Your task to perform on an android device: Open Chrome and go to settings Image 0: 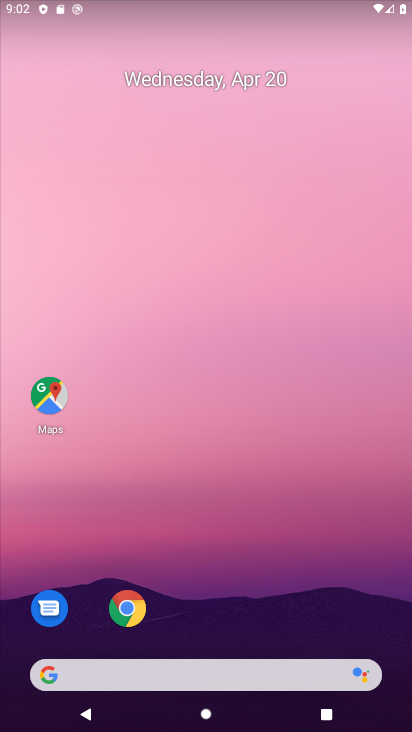
Step 0: click (111, 610)
Your task to perform on an android device: Open Chrome and go to settings Image 1: 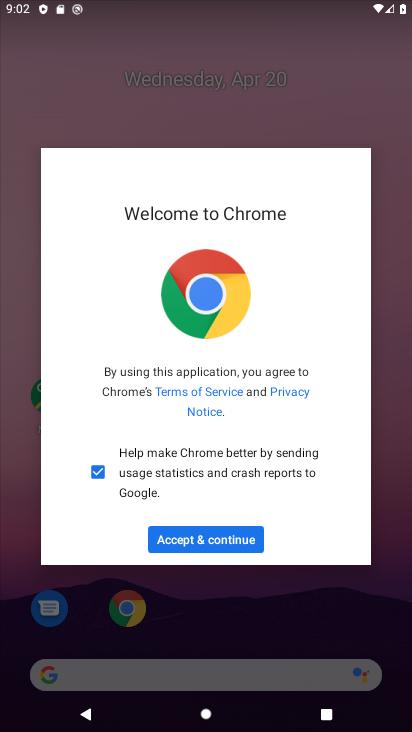
Step 1: click (167, 533)
Your task to perform on an android device: Open Chrome and go to settings Image 2: 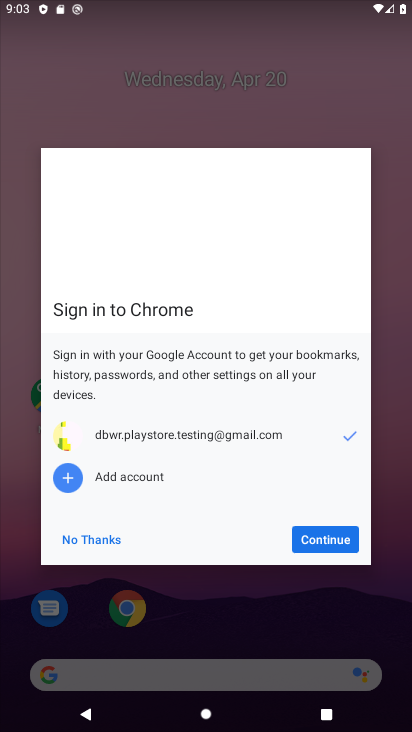
Step 2: click (341, 528)
Your task to perform on an android device: Open Chrome and go to settings Image 3: 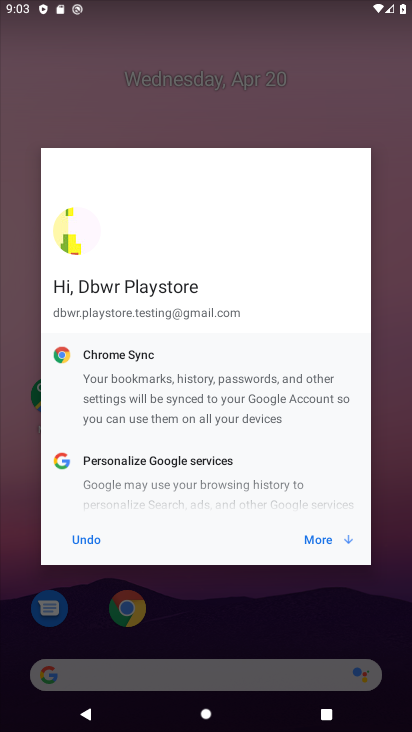
Step 3: click (339, 535)
Your task to perform on an android device: Open Chrome and go to settings Image 4: 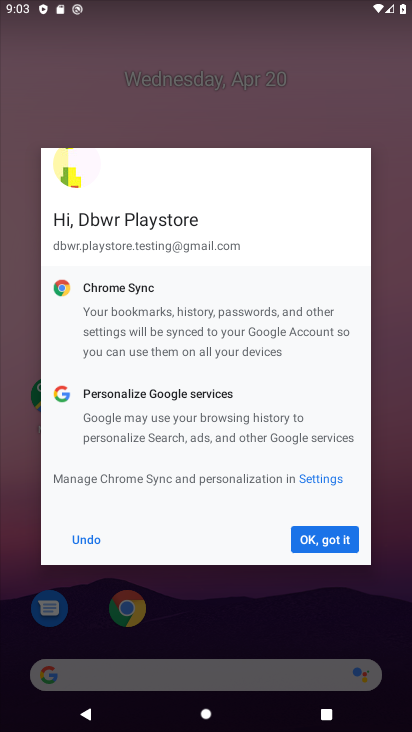
Step 4: click (339, 535)
Your task to perform on an android device: Open Chrome and go to settings Image 5: 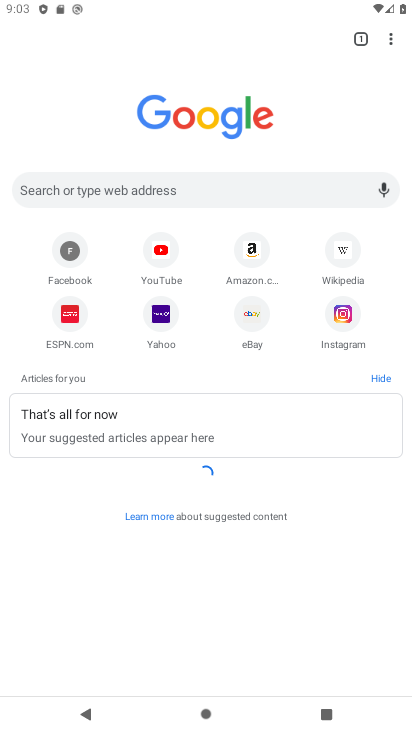
Step 5: click (392, 40)
Your task to perform on an android device: Open Chrome and go to settings Image 6: 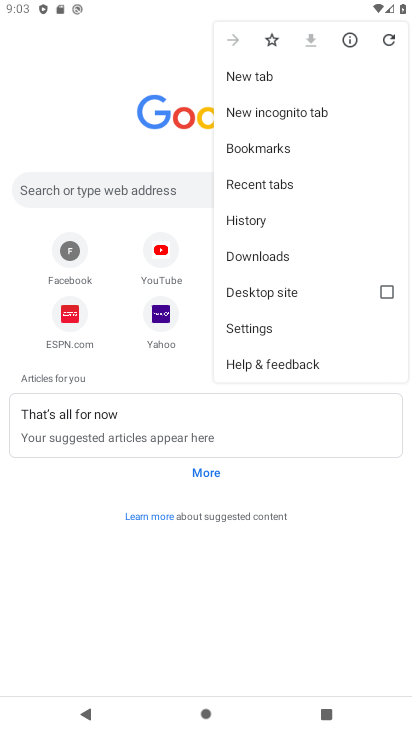
Step 6: click (240, 330)
Your task to perform on an android device: Open Chrome and go to settings Image 7: 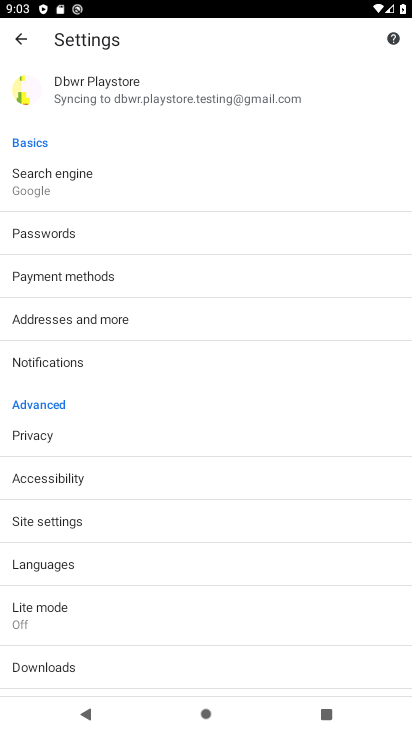
Step 7: task complete